Your task to perform on an android device: Open Maps and search for coffee Image 0: 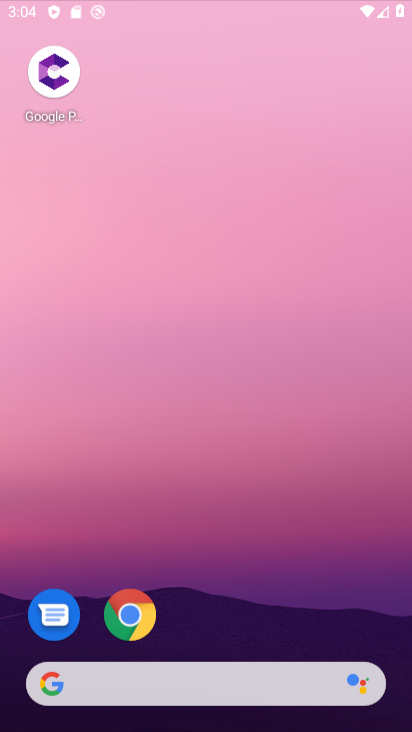
Step 0: press home button
Your task to perform on an android device: Open Maps and search for coffee Image 1: 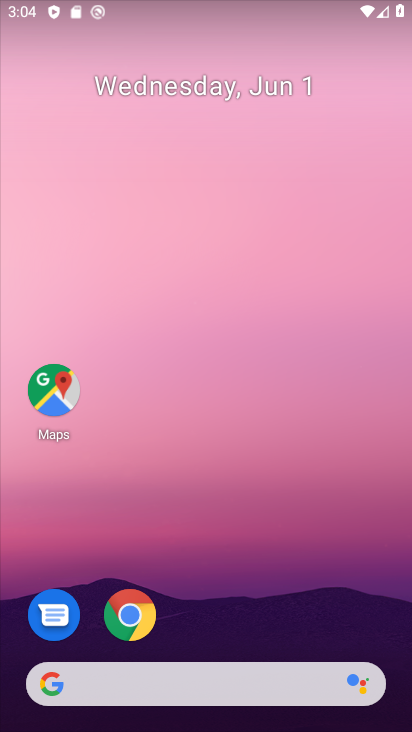
Step 1: drag from (212, 640) to (182, 79)
Your task to perform on an android device: Open Maps and search for coffee Image 2: 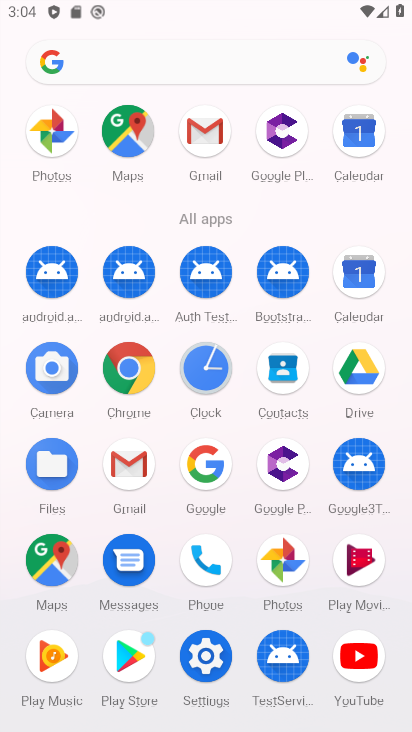
Step 2: click (51, 553)
Your task to perform on an android device: Open Maps and search for coffee Image 3: 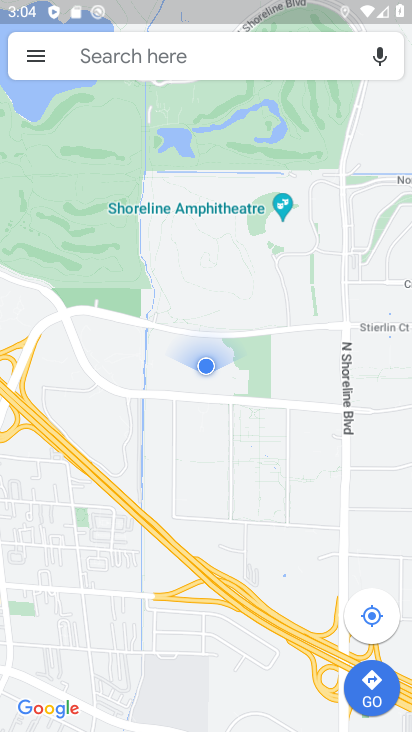
Step 3: click (130, 53)
Your task to perform on an android device: Open Maps and search for coffee Image 4: 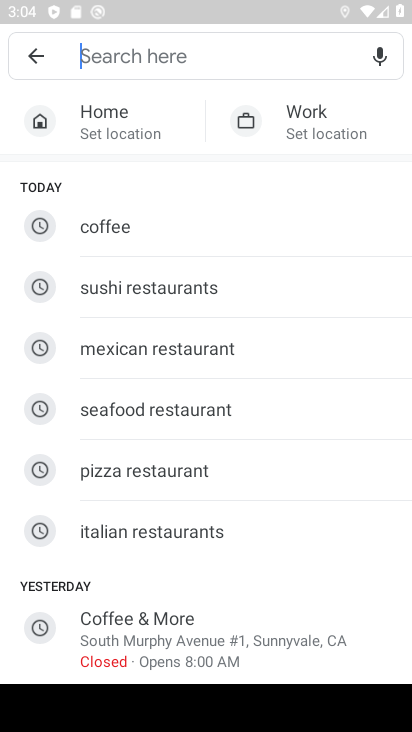
Step 4: type "coffee"
Your task to perform on an android device: Open Maps and search for coffee Image 5: 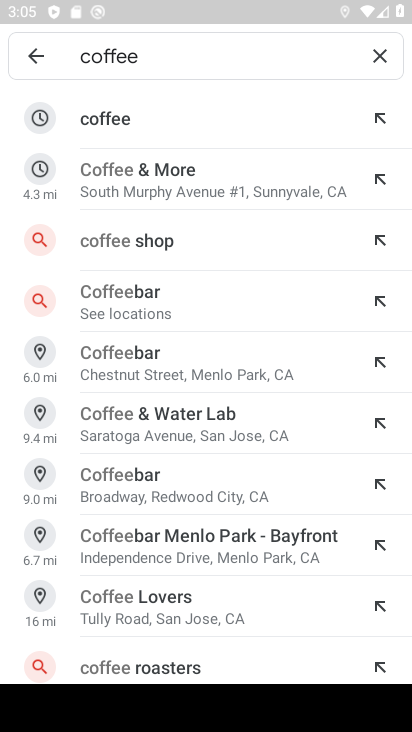
Step 5: click (134, 113)
Your task to perform on an android device: Open Maps and search for coffee Image 6: 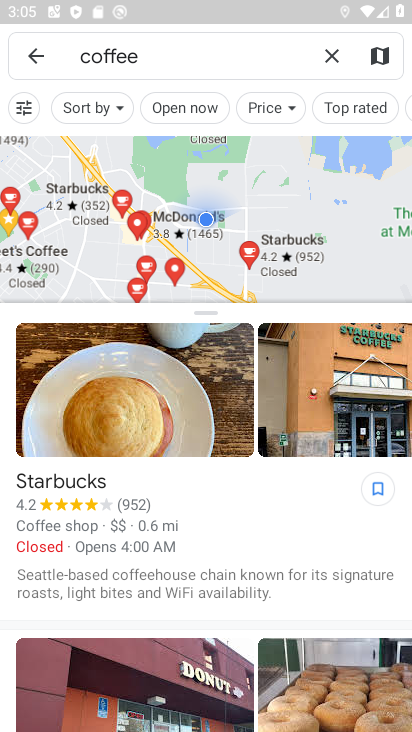
Step 6: task complete